Your task to perform on an android device: turn on data saver in the chrome app Image 0: 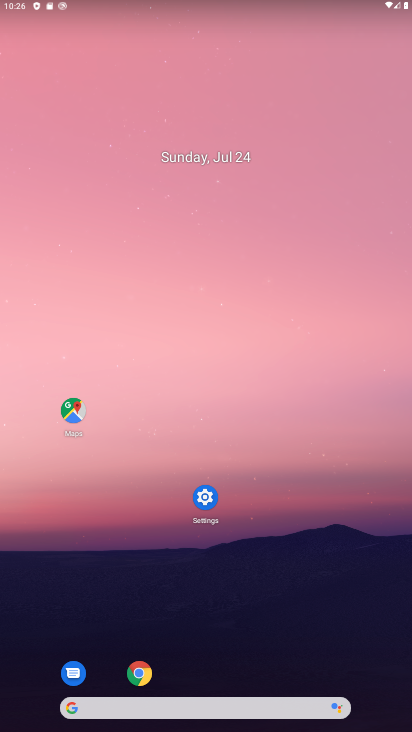
Step 0: press home button
Your task to perform on an android device: turn on data saver in the chrome app Image 1: 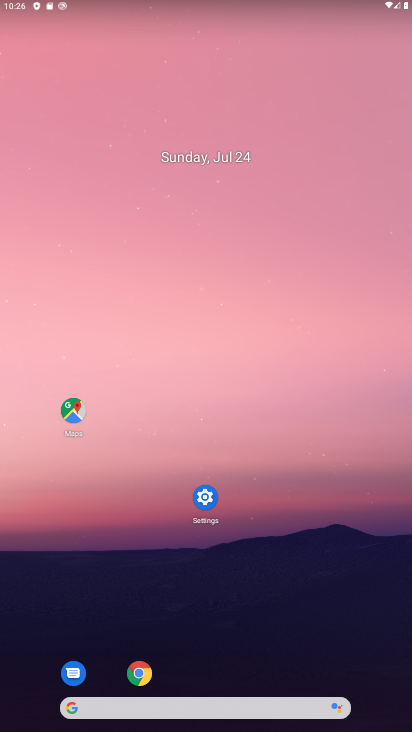
Step 1: click (141, 676)
Your task to perform on an android device: turn on data saver in the chrome app Image 2: 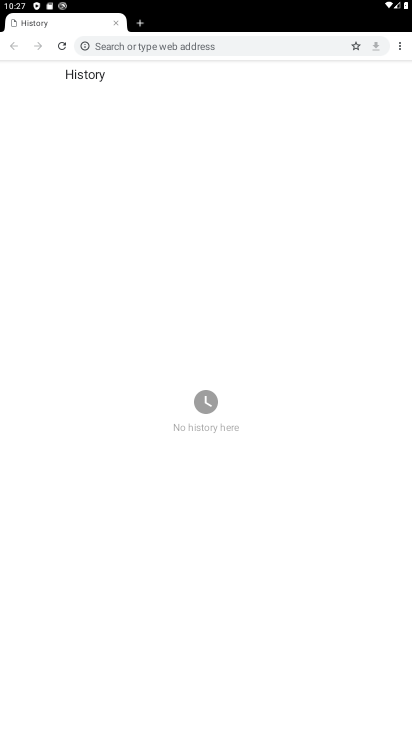
Step 2: click (401, 50)
Your task to perform on an android device: turn on data saver in the chrome app Image 3: 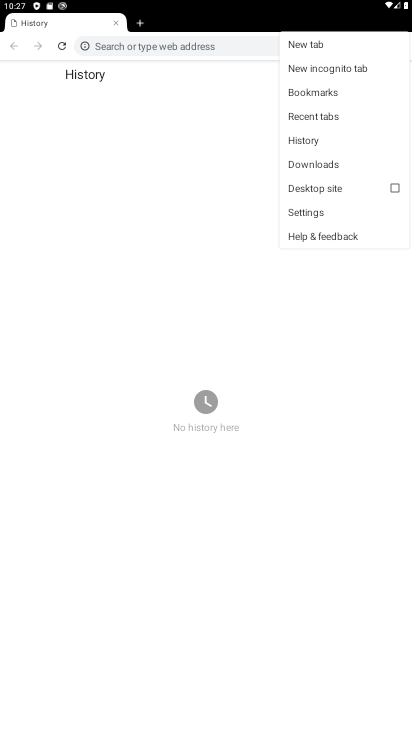
Step 3: click (335, 215)
Your task to perform on an android device: turn on data saver in the chrome app Image 4: 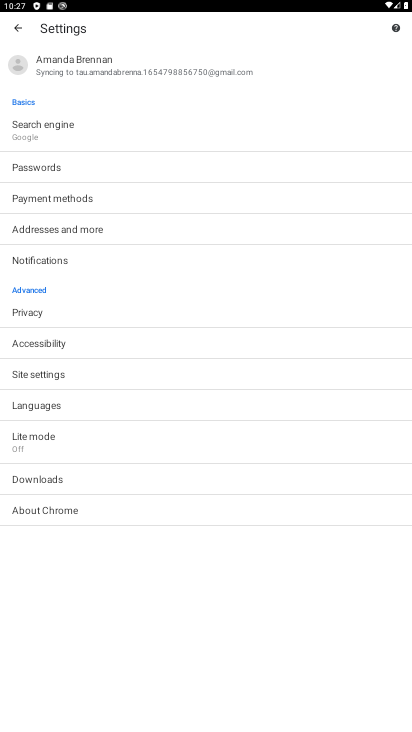
Step 4: task complete